Your task to perform on an android device: open chrome privacy settings Image 0: 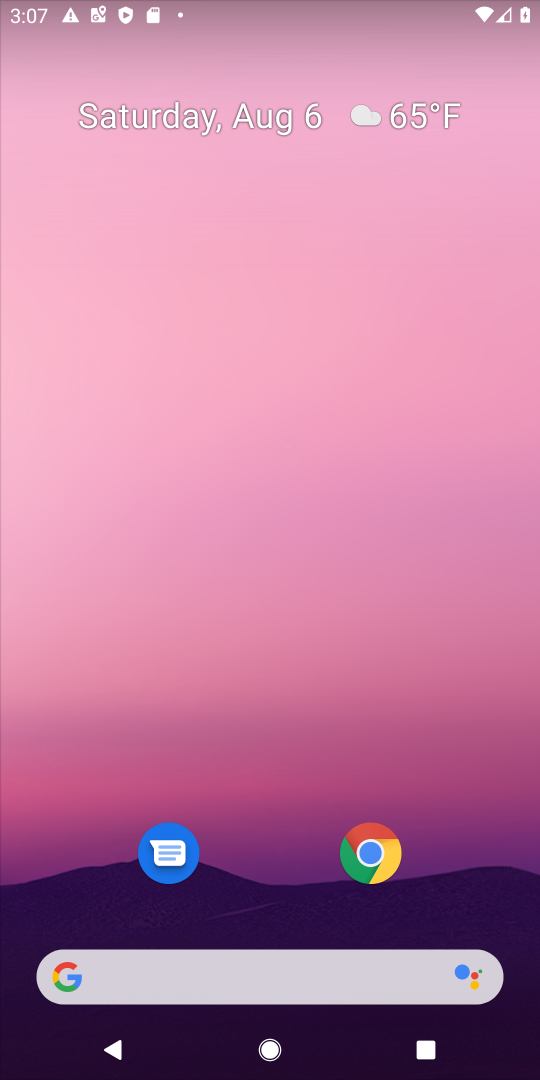
Step 0: click (366, 852)
Your task to perform on an android device: open chrome privacy settings Image 1: 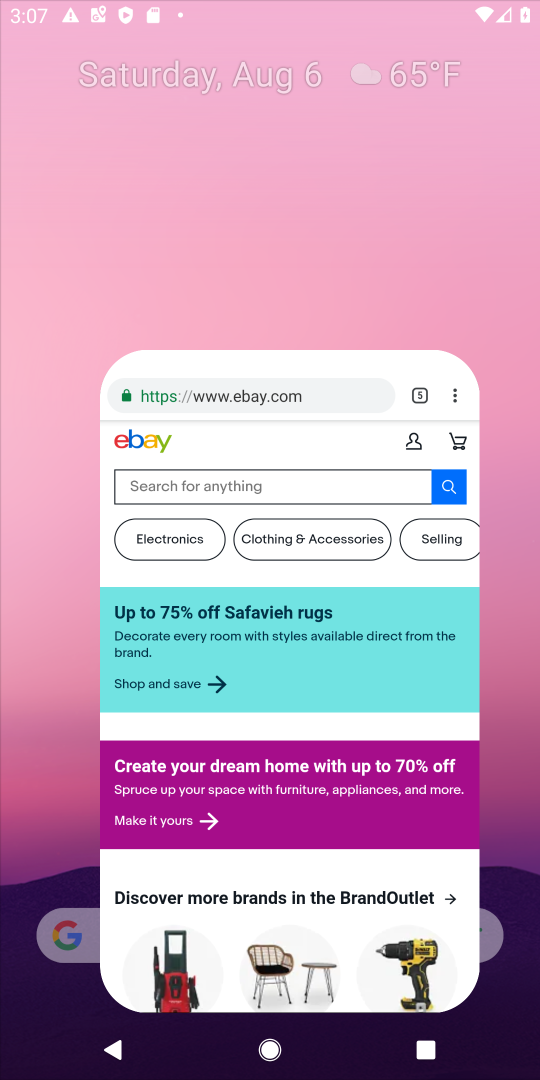
Step 1: click (362, 852)
Your task to perform on an android device: open chrome privacy settings Image 2: 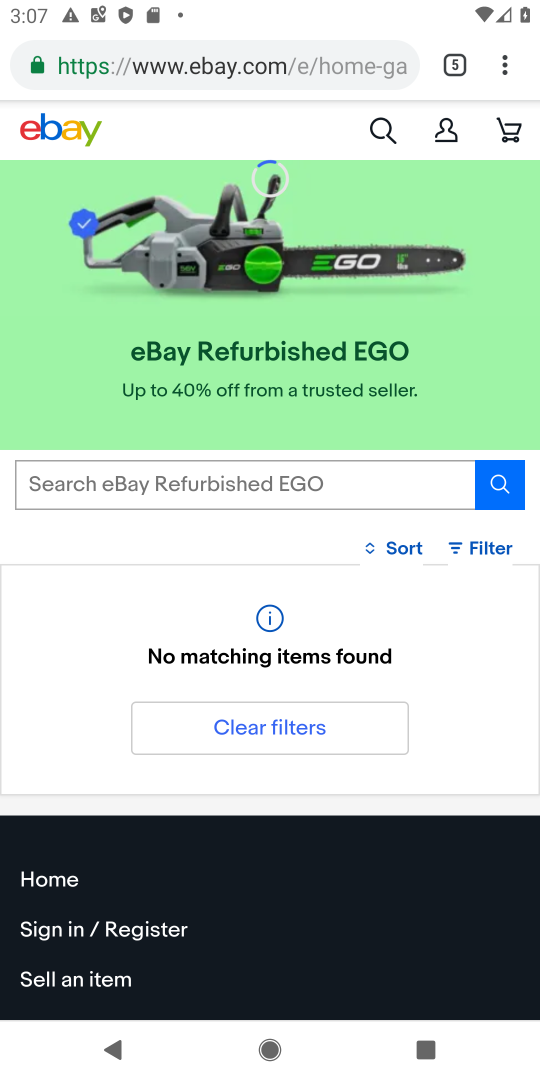
Step 2: drag from (500, 60) to (331, 786)
Your task to perform on an android device: open chrome privacy settings Image 3: 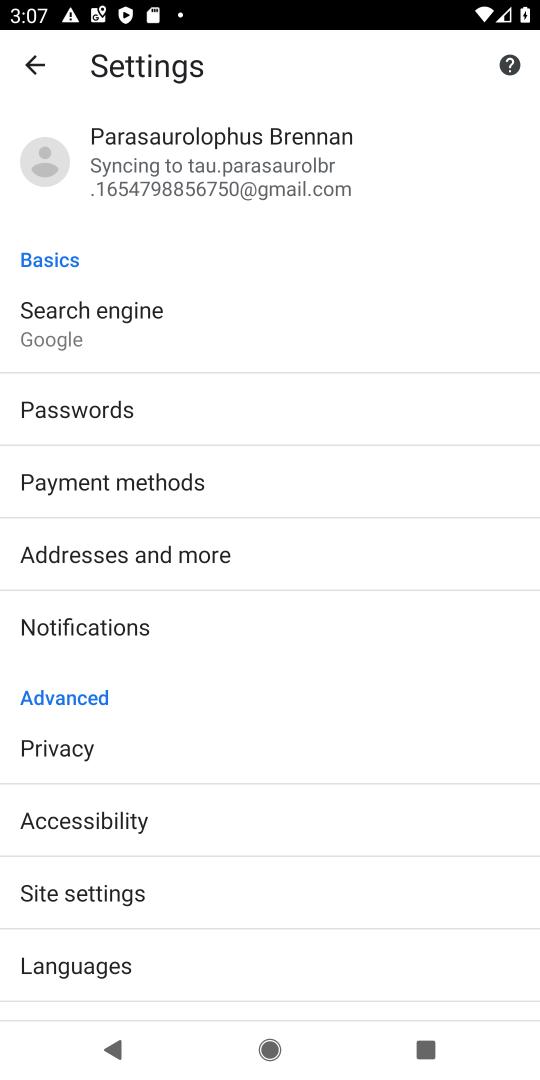
Step 3: click (65, 757)
Your task to perform on an android device: open chrome privacy settings Image 4: 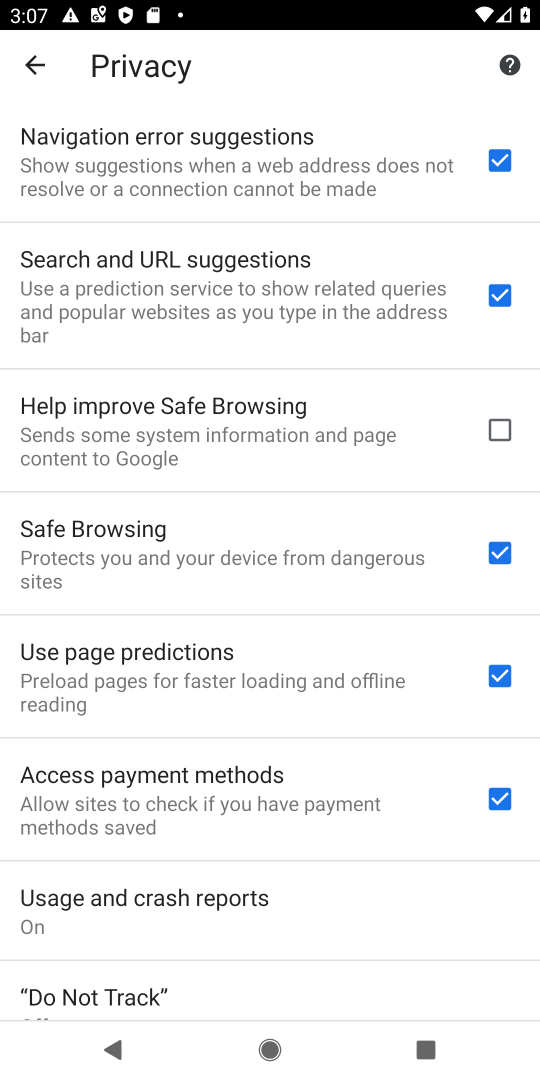
Step 4: task complete